Your task to perform on an android device: Go to ESPN.com Image 0: 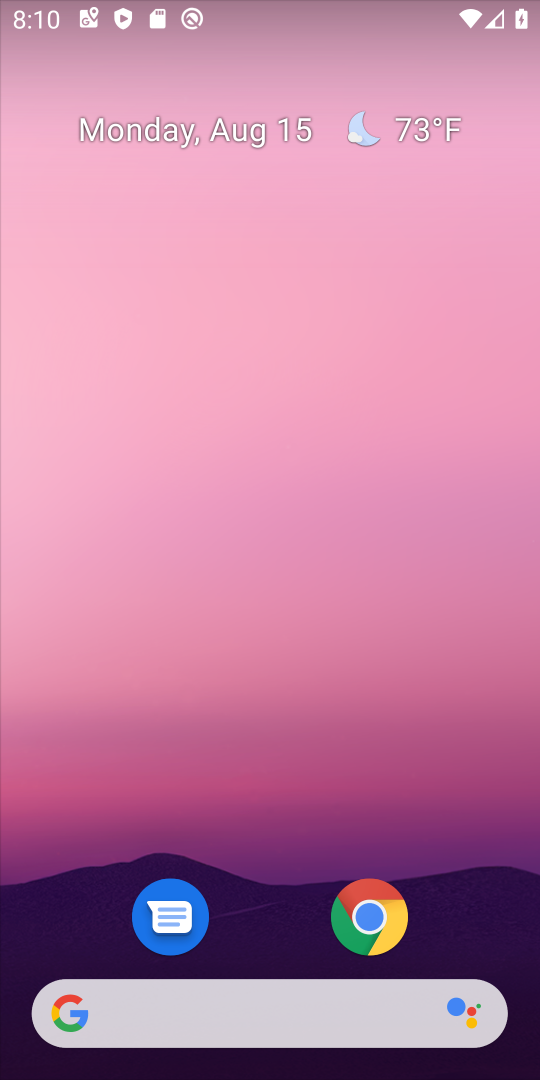
Step 0: click (279, 1015)
Your task to perform on an android device: Go to ESPN.com Image 1: 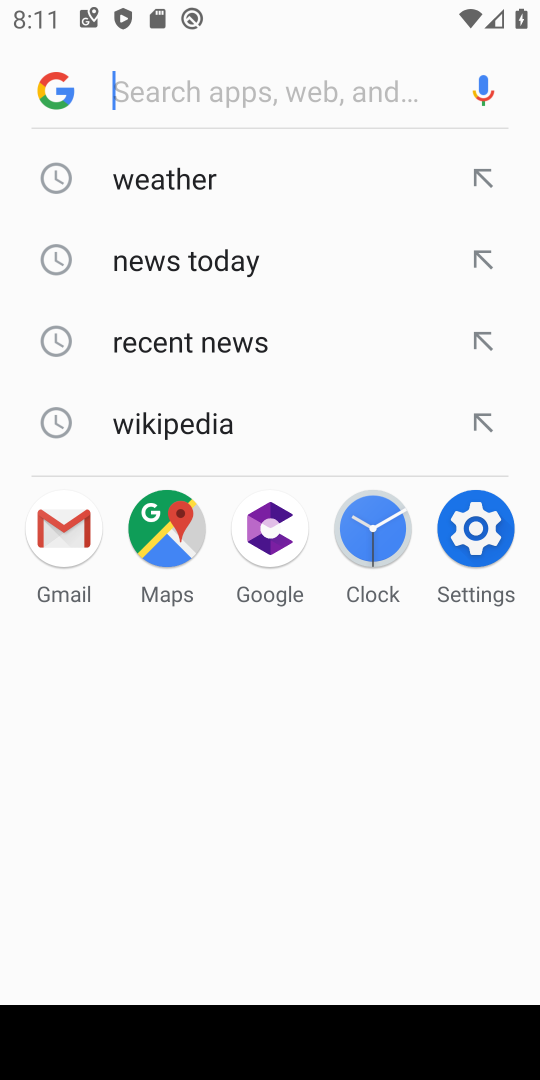
Step 1: type "espn.com"
Your task to perform on an android device: Go to ESPN.com Image 2: 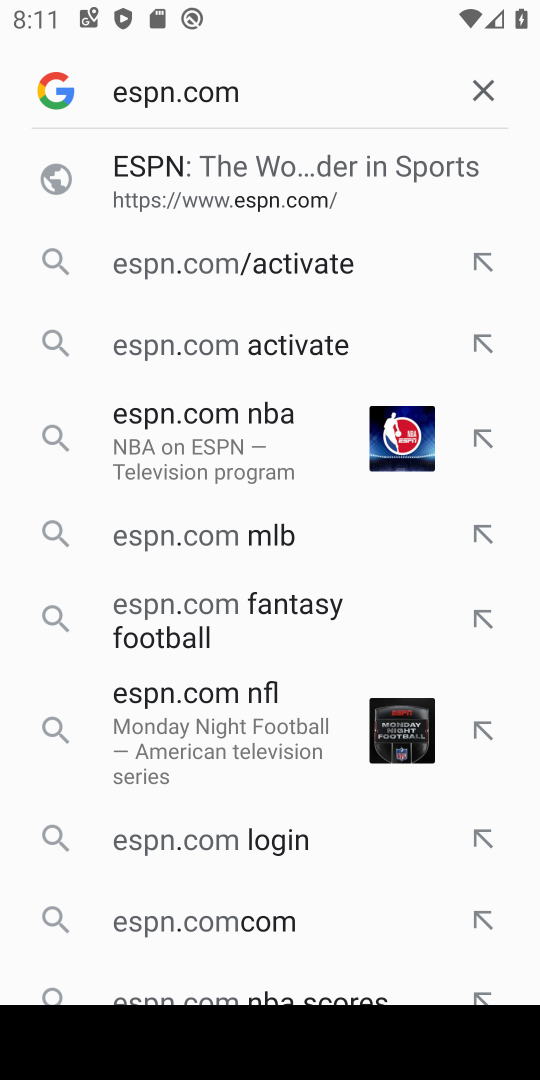
Step 2: click (251, 164)
Your task to perform on an android device: Go to ESPN.com Image 3: 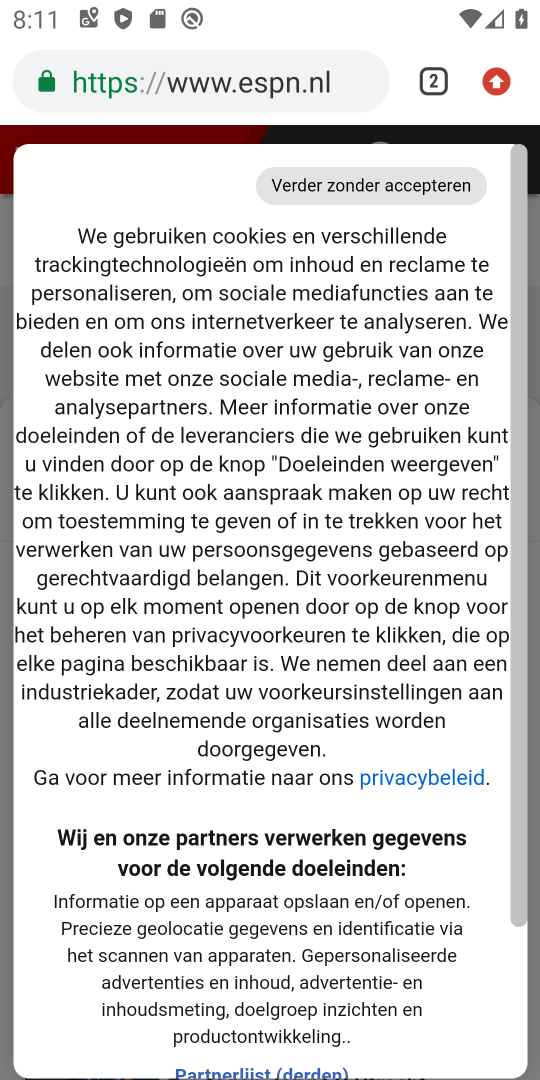
Step 3: drag from (323, 978) to (248, 331)
Your task to perform on an android device: Go to ESPN.com Image 4: 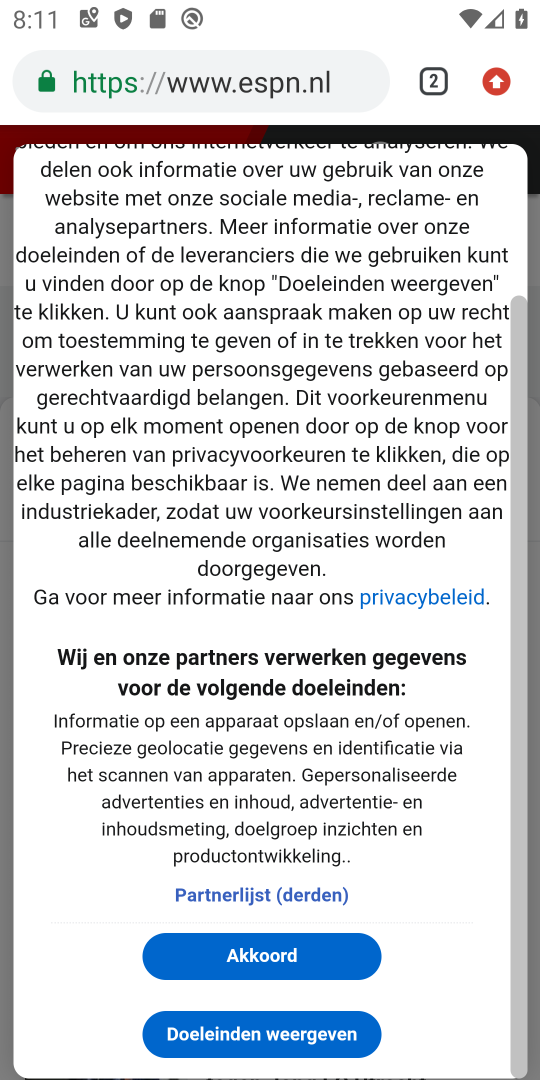
Step 4: drag from (295, 323) to (332, 856)
Your task to perform on an android device: Go to ESPN.com Image 5: 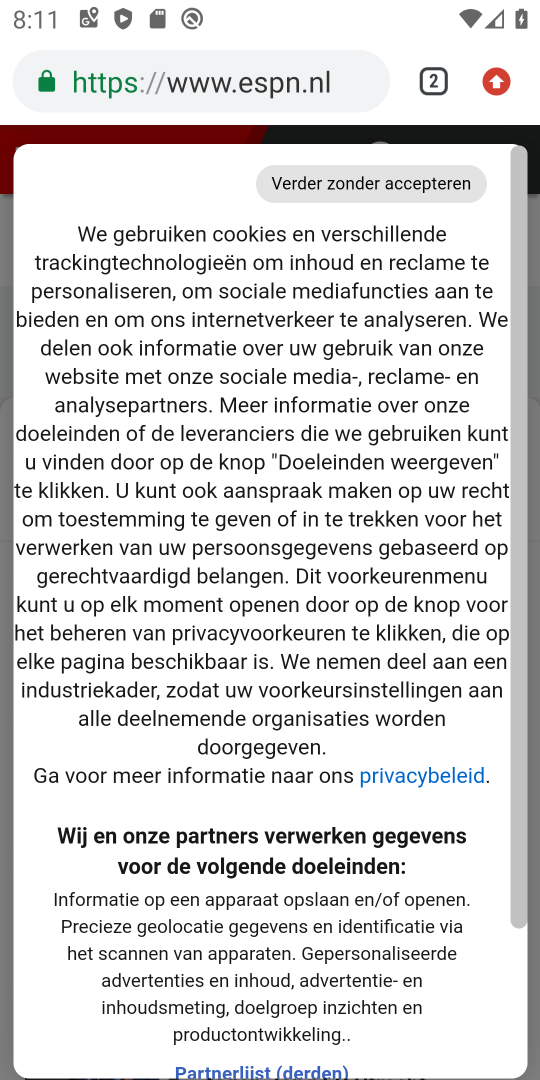
Step 5: click (432, 183)
Your task to perform on an android device: Go to ESPN.com Image 6: 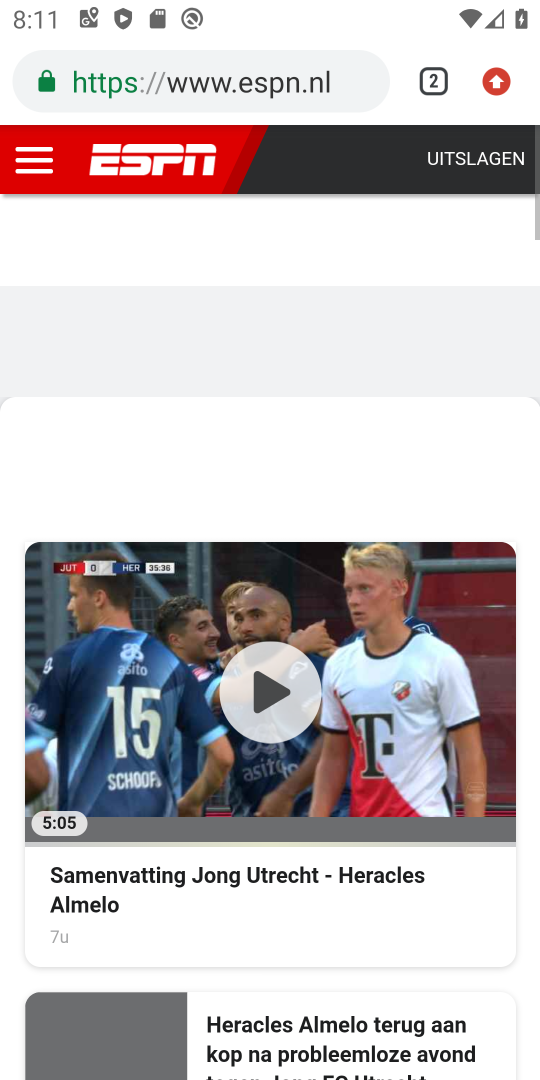
Step 6: task complete